Your task to perform on an android device: toggle translation in the chrome app Image 0: 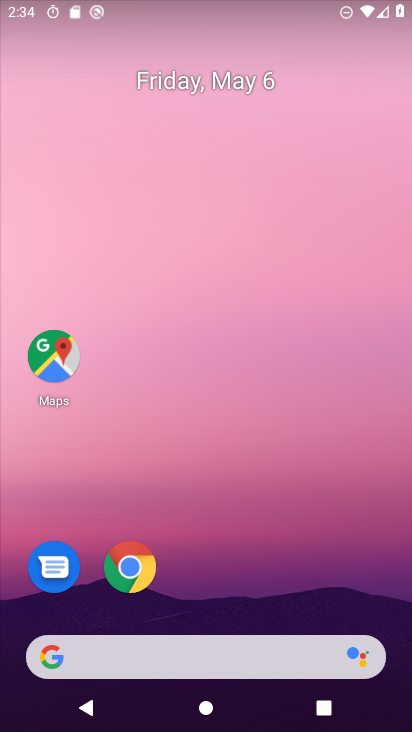
Step 0: drag from (274, 638) to (287, 193)
Your task to perform on an android device: toggle translation in the chrome app Image 1: 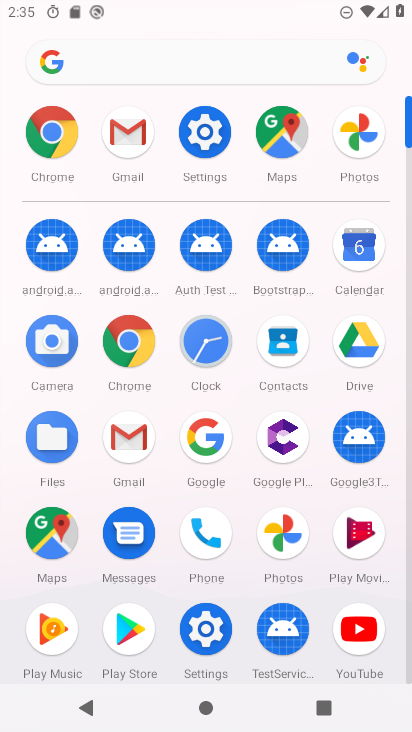
Step 1: click (49, 137)
Your task to perform on an android device: toggle translation in the chrome app Image 2: 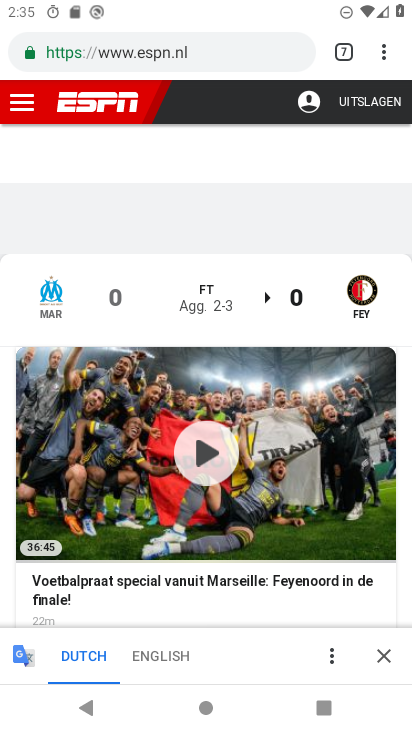
Step 2: click (381, 58)
Your task to perform on an android device: toggle translation in the chrome app Image 3: 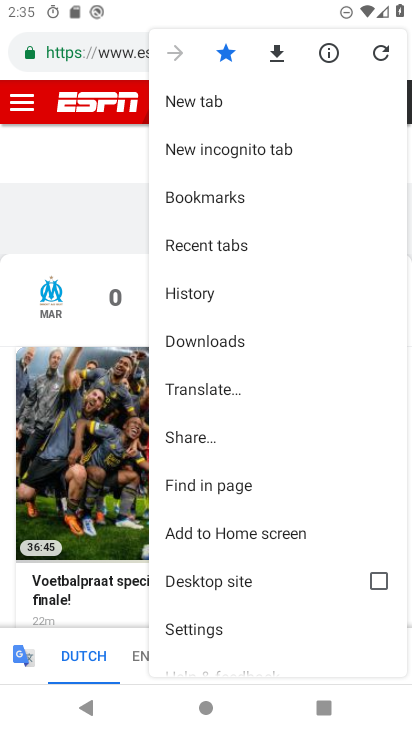
Step 3: click (217, 628)
Your task to perform on an android device: toggle translation in the chrome app Image 4: 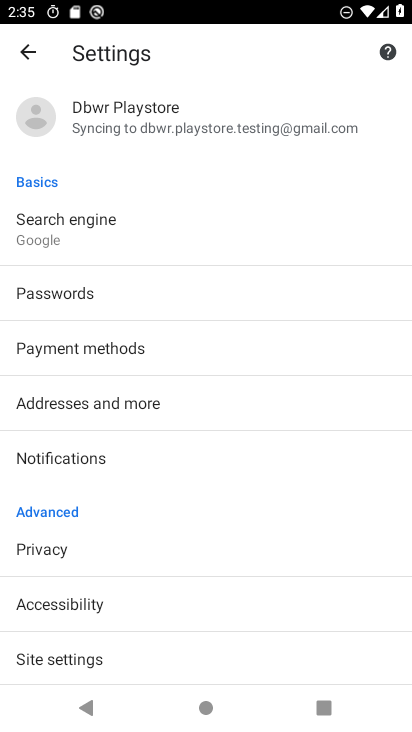
Step 4: drag from (139, 640) to (154, 443)
Your task to perform on an android device: toggle translation in the chrome app Image 5: 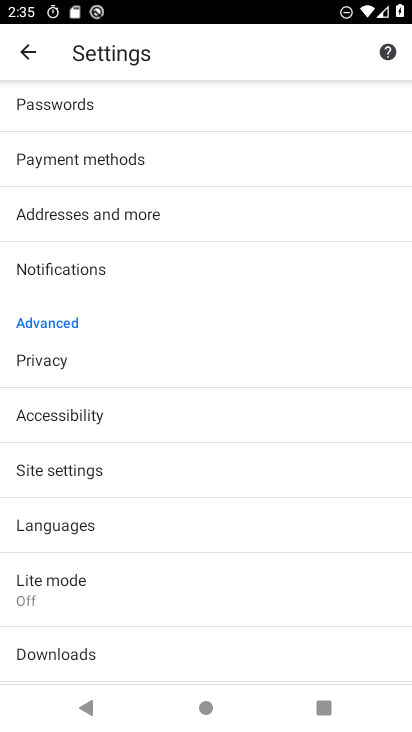
Step 5: click (84, 522)
Your task to perform on an android device: toggle translation in the chrome app Image 6: 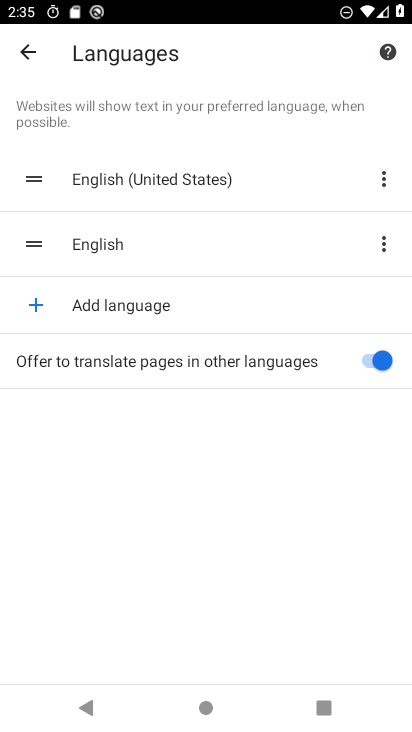
Step 6: click (335, 357)
Your task to perform on an android device: toggle translation in the chrome app Image 7: 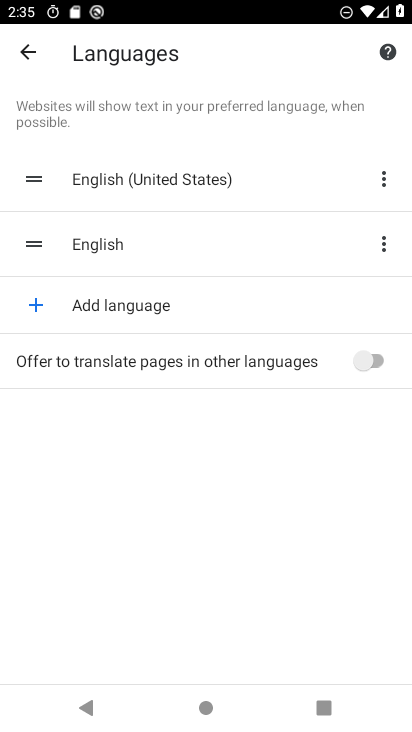
Step 7: click (329, 358)
Your task to perform on an android device: toggle translation in the chrome app Image 8: 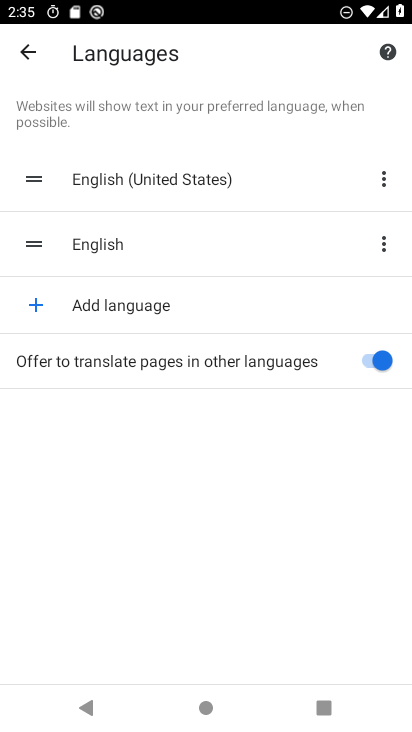
Step 8: task complete